Your task to perform on an android device: turn on priority inbox in the gmail app Image 0: 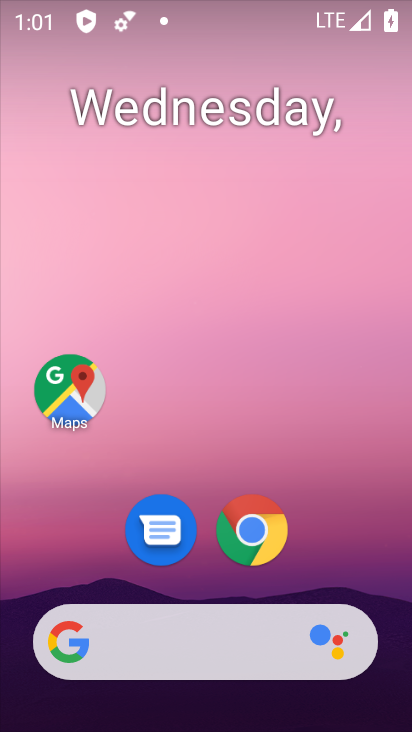
Step 0: drag from (361, 548) to (333, 237)
Your task to perform on an android device: turn on priority inbox in the gmail app Image 1: 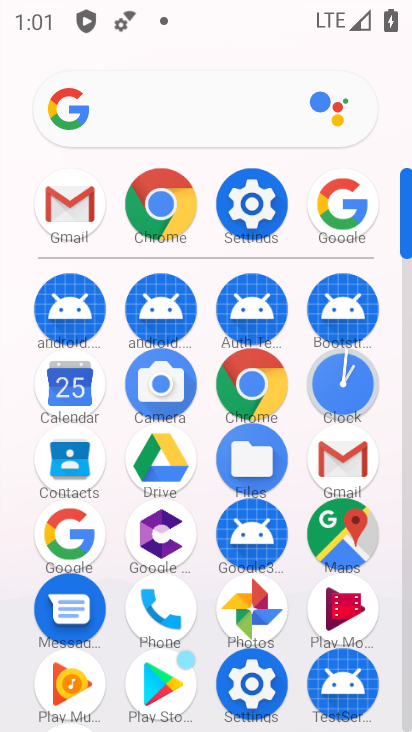
Step 1: click (347, 471)
Your task to perform on an android device: turn on priority inbox in the gmail app Image 2: 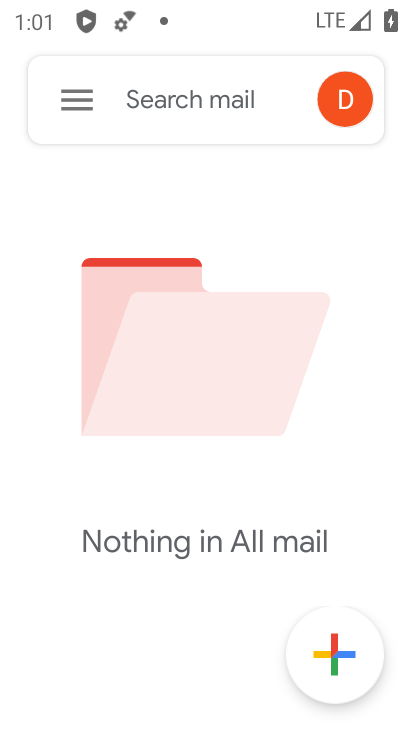
Step 2: click (80, 100)
Your task to perform on an android device: turn on priority inbox in the gmail app Image 3: 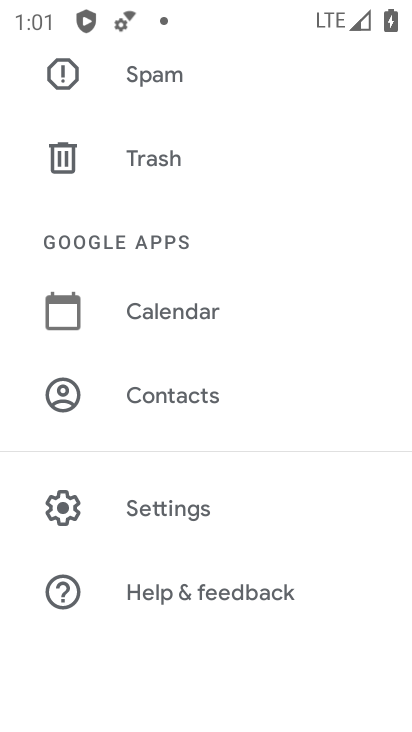
Step 3: drag from (244, 149) to (235, 523)
Your task to perform on an android device: turn on priority inbox in the gmail app Image 4: 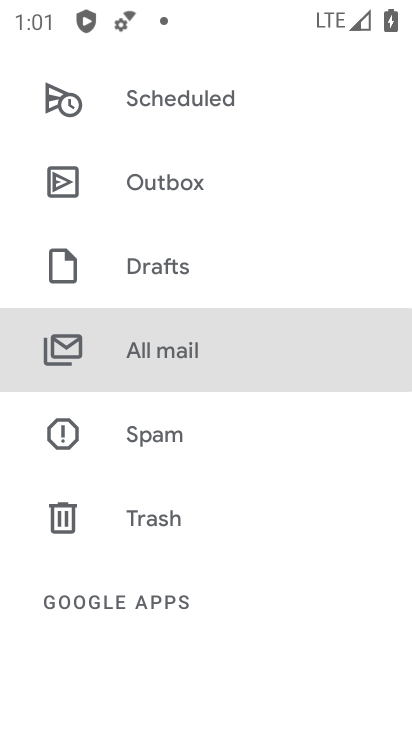
Step 4: drag from (219, 272) to (203, 619)
Your task to perform on an android device: turn on priority inbox in the gmail app Image 5: 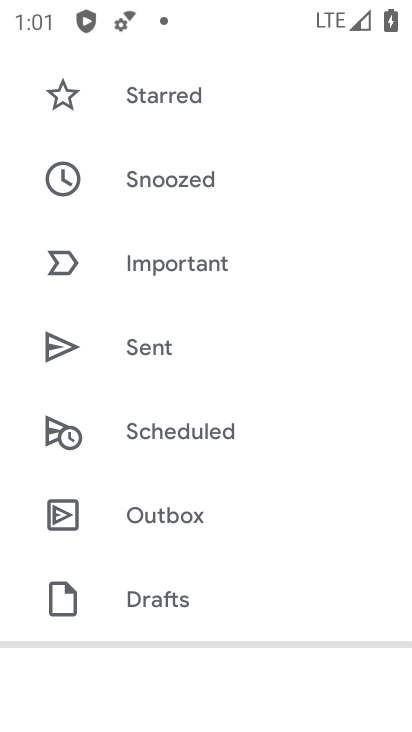
Step 5: drag from (212, 200) to (225, 701)
Your task to perform on an android device: turn on priority inbox in the gmail app Image 6: 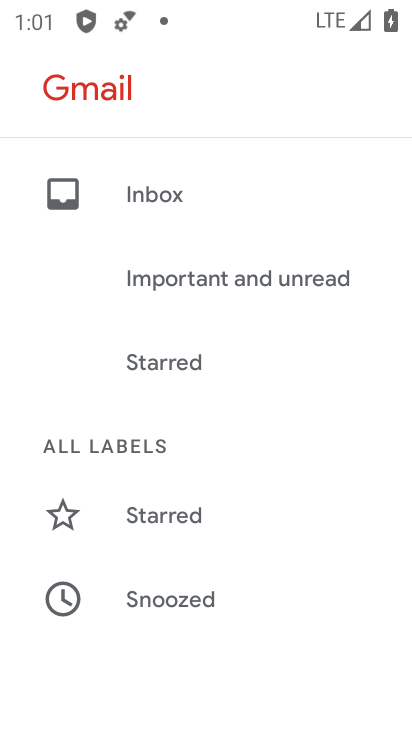
Step 6: drag from (196, 646) to (241, 291)
Your task to perform on an android device: turn on priority inbox in the gmail app Image 7: 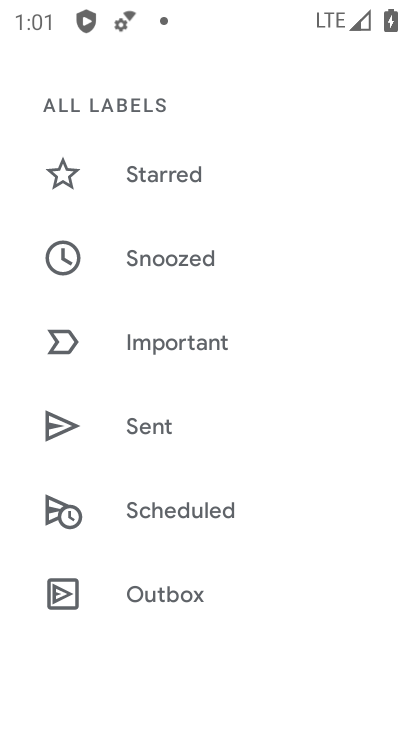
Step 7: drag from (196, 617) to (245, 266)
Your task to perform on an android device: turn on priority inbox in the gmail app Image 8: 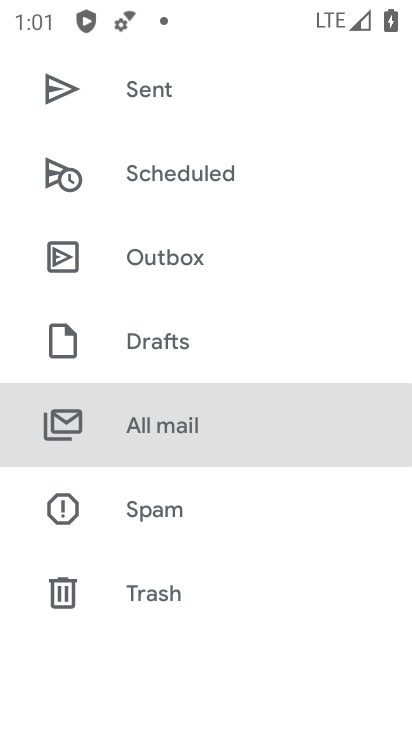
Step 8: drag from (179, 572) to (227, 262)
Your task to perform on an android device: turn on priority inbox in the gmail app Image 9: 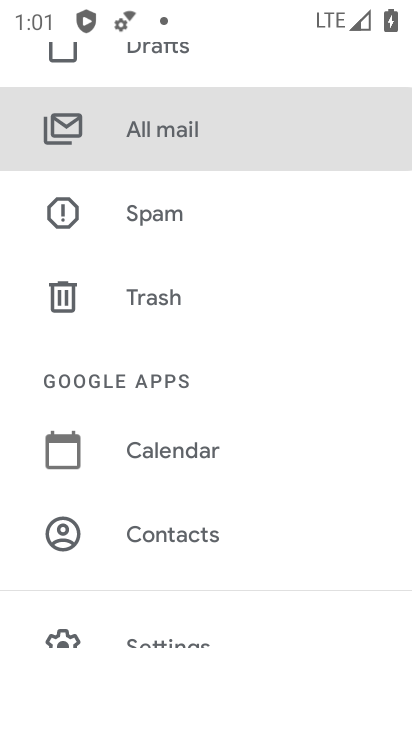
Step 9: drag from (182, 587) to (215, 260)
Your task to perform on an android device: turn on priority inbox in the gmail app Image 10: 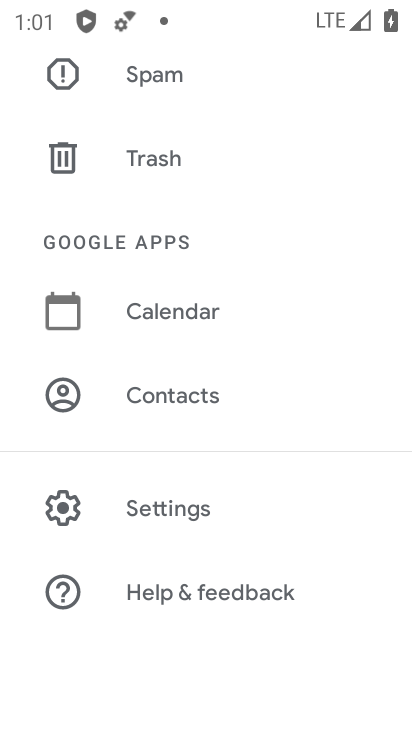
Step 10: click (212, 500)
Your task to perform on an android device: turn on priority inbox in the gmail app Image 11: 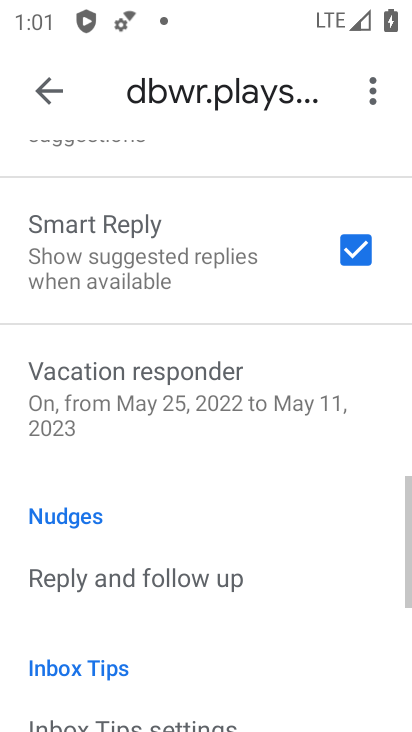
Step 11: drag from (211, 226) to (141, 660)
Your task to perform on an android device: turn on priority inbox in the gmail app Image 12: 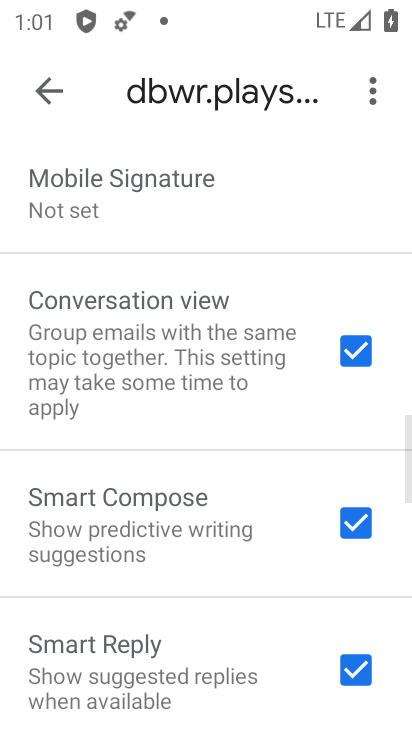
Step 12: drag from (186, 234) to (144, 693)
Your task to perform on an android device: turn on priority inbox in the gmail app Image 13: 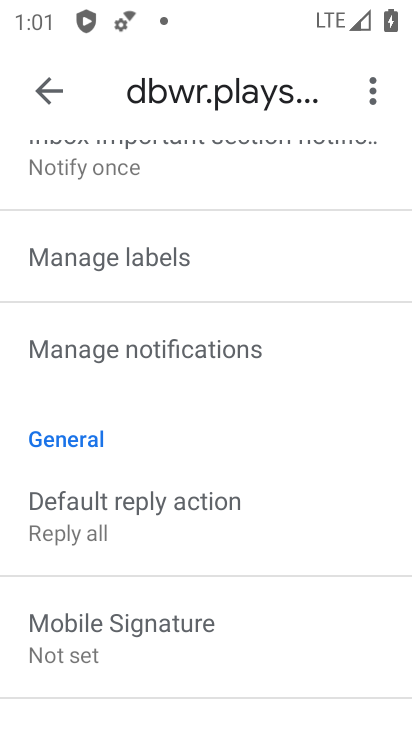
Step 13: drag from (197, 279) to (161, 680)
Your task to perform on an android device: turn on priority inbox in the gmail app Image 14: 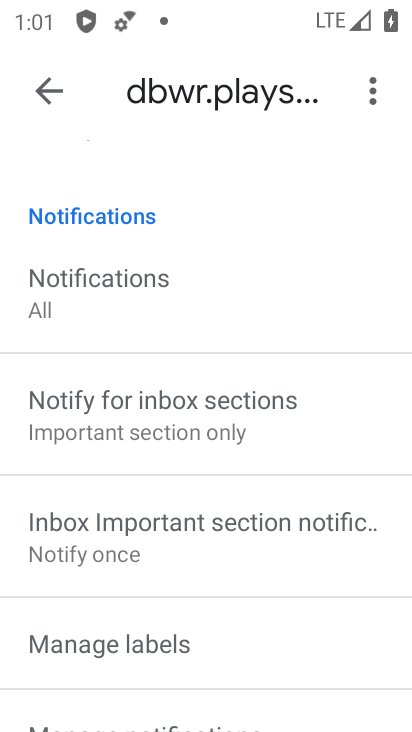
Step 14: drag from (162, 274) to (99, 667)
Your task to perform on an android device: turn on priority inbox in the gmail app Image 15: 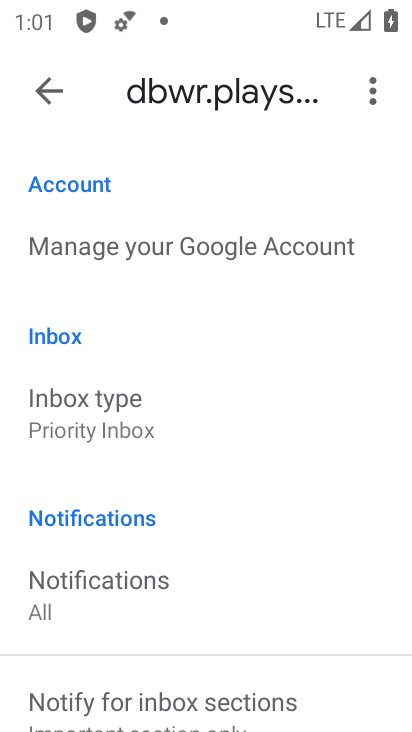
Step 15: click (125, 418)
Your task to perform on an android device: turn on priority inbox in the gmail app Image 16: 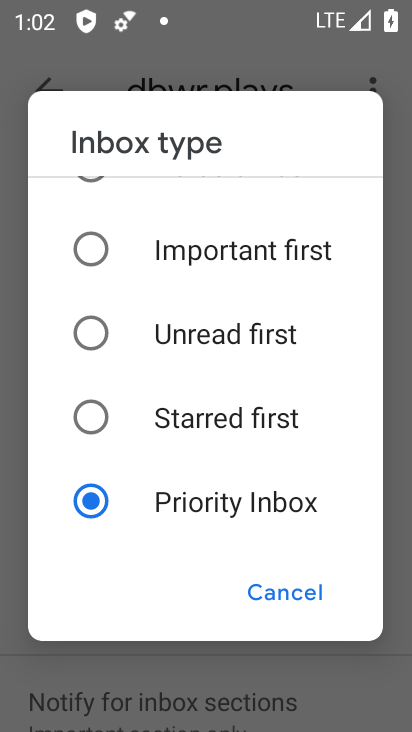
Step 16: task complete